Your task to perform on an android device: Search for vegetarian restaurants on Maps Image 0: 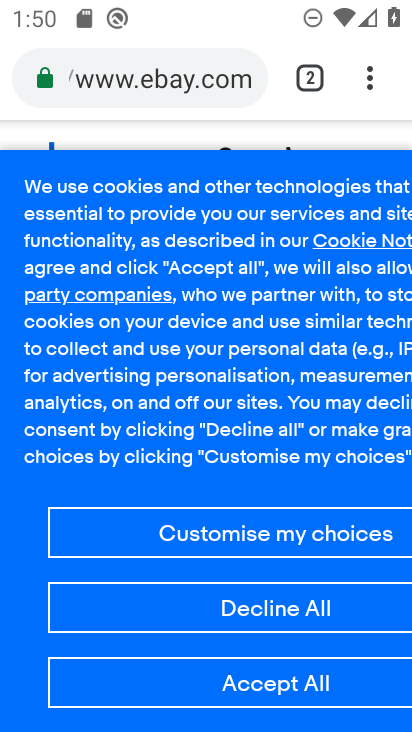
Step 0: press home button
Your task to perform on an android device: Search for vegetarian restaurants on Maps Image 1: 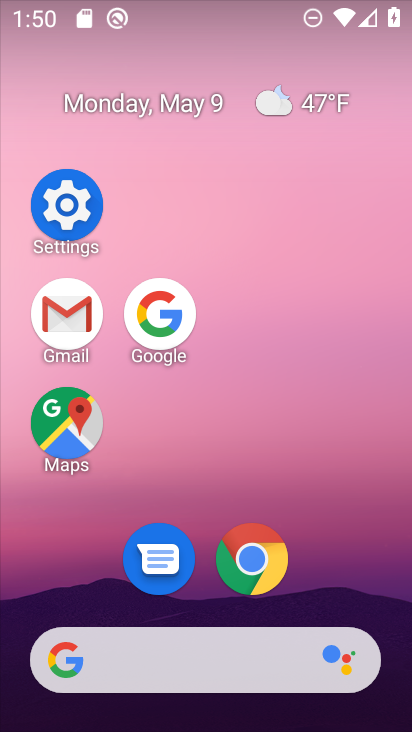
Step 1: click (71, 431)
Your task to perform on an android device: Search for vegetarian restaurants on Maps Image 2: 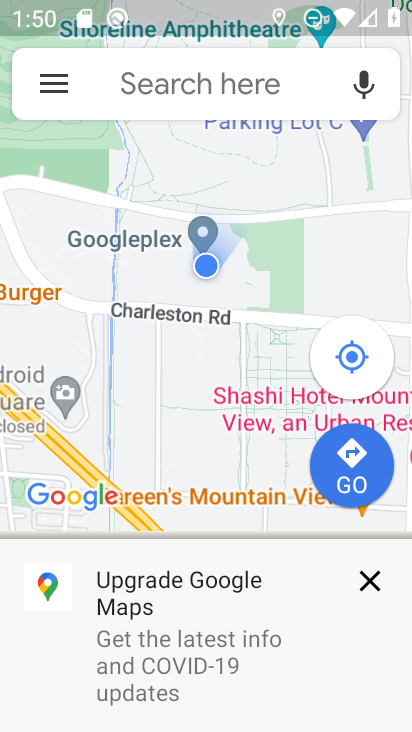
Step 2: click (247, 69)
Your task to perform on an android device: Search for vegetarian restaurants on Maps Image 3: 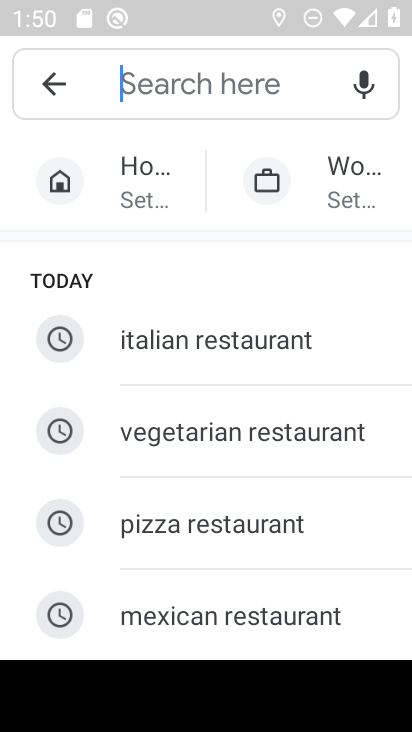
Step 3: click (300, 453)
Your task to perform on an android device: Search for vegetarian restaurants on Maps Image 4: 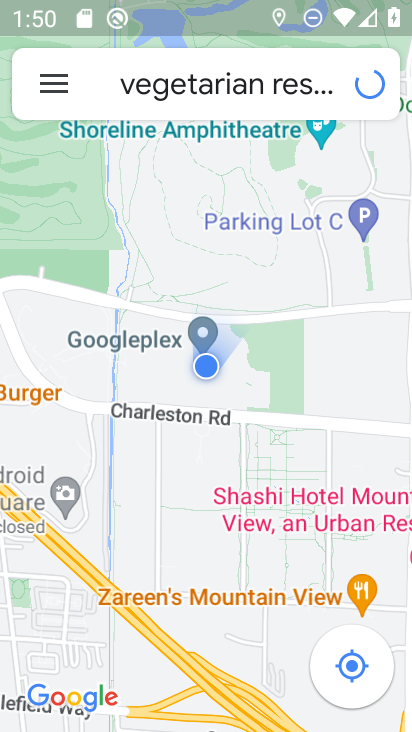
Step 4: task complete